Your task to perform on an android device: open app "Etsy: Buy & Sell Unique Items" (install if not already installed) and go to login screen Image 0: 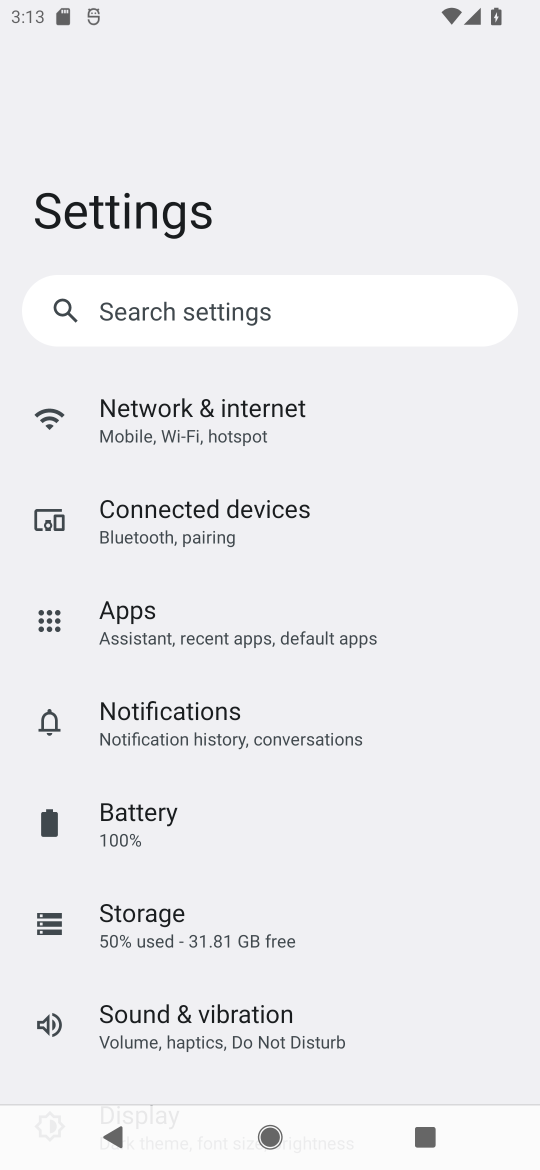
Step 0: press home button
Your task to perform on an android device: open app "Etsy: Buy & Sell Unique Items" (install if not already installed) and go to login screen Image 1: 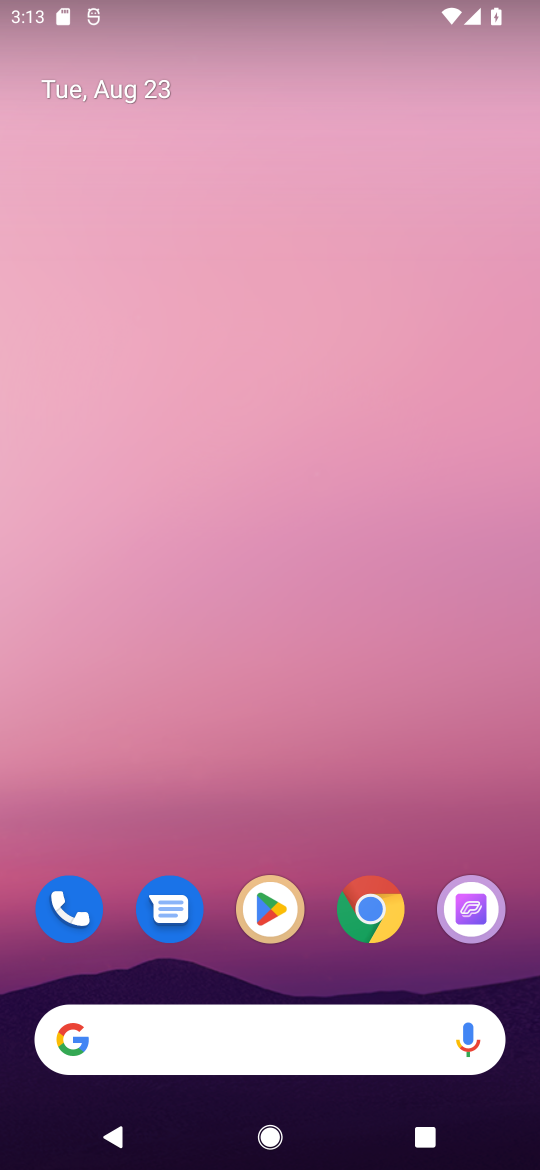
Step 1: click (264, 898)
Your task to perform on an android device: open app "Etsy: Buy & Sell Unique Items" (install if not already installed) and go to login screen Image 2: 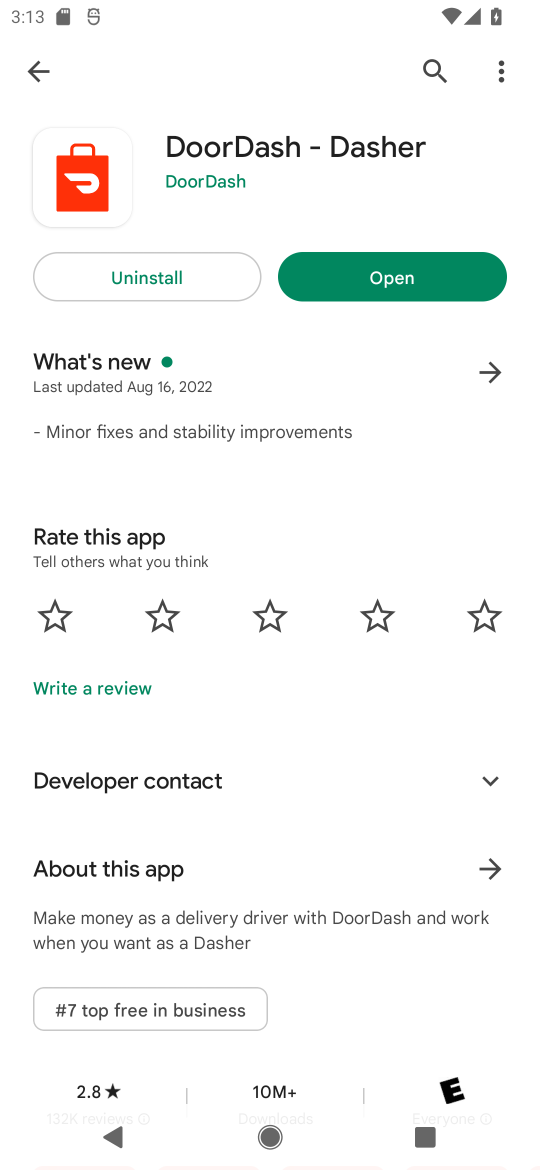
Step 2: click (422, 58)
Your task to perform on an android device: open app "Etsy: Buy & Sell Unique Items" (install if not already installed) and go to login screen Image 3: 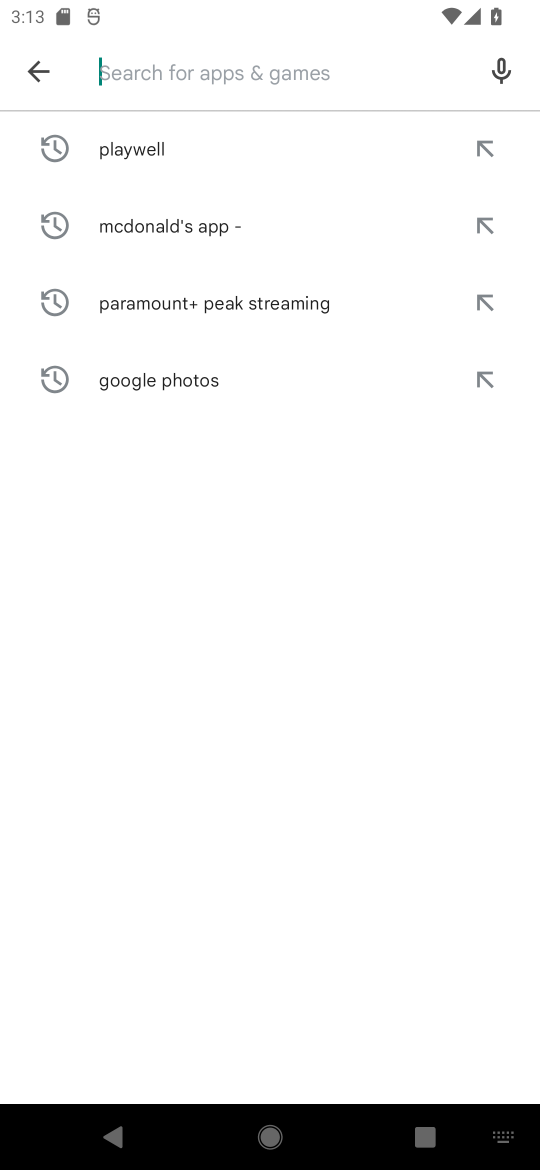
Step 3: type "Etsy"
Your task to perform on an android device: open app "Etsy: Buy & Sell Unique Items" (install if not already installed) and go to login screen Image 4: 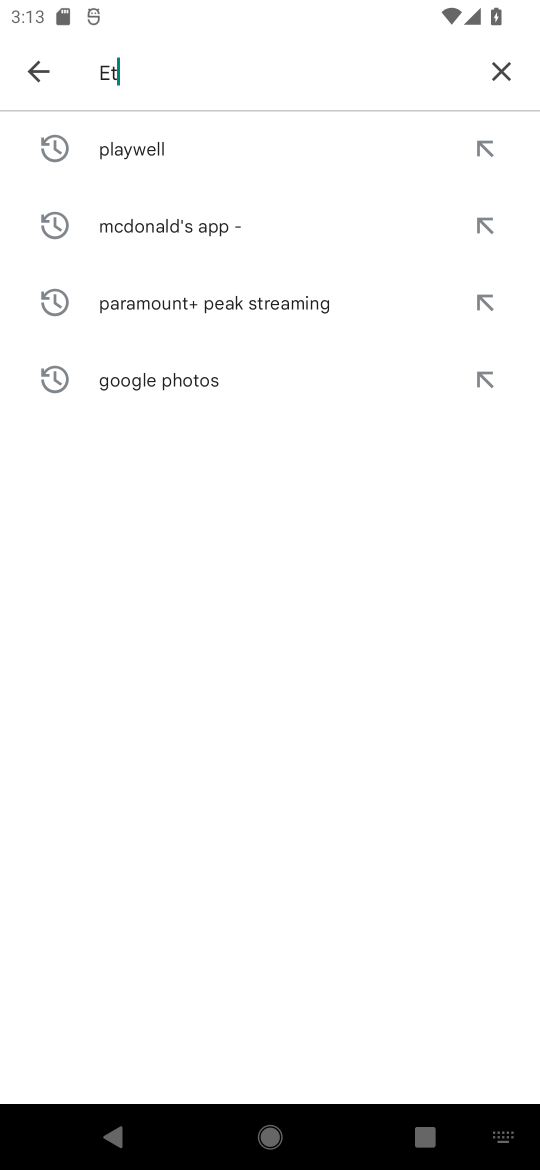
Step 4: type ""
Your task to perform on an android device: open app "Etsy: Buy & Sell Unique Items" (install if not already installed) and go to login screen Image 5: 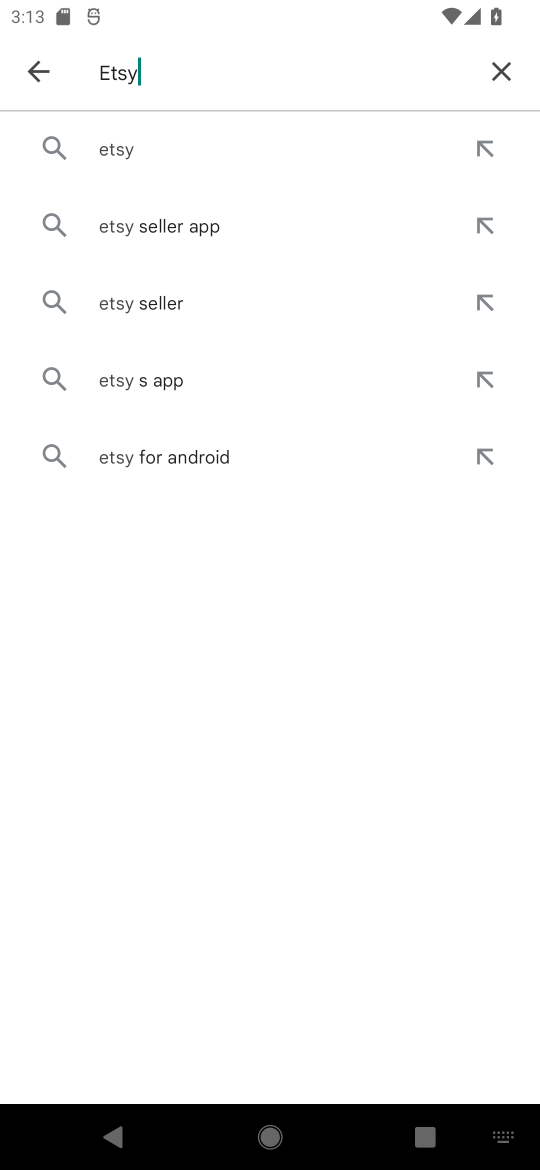
Step 5: click (157, 149)
Your task to perform on an android device: open app "Etsy: Buy & Sell Unique Items" (install if not already installed) and go to login screen Image 6: 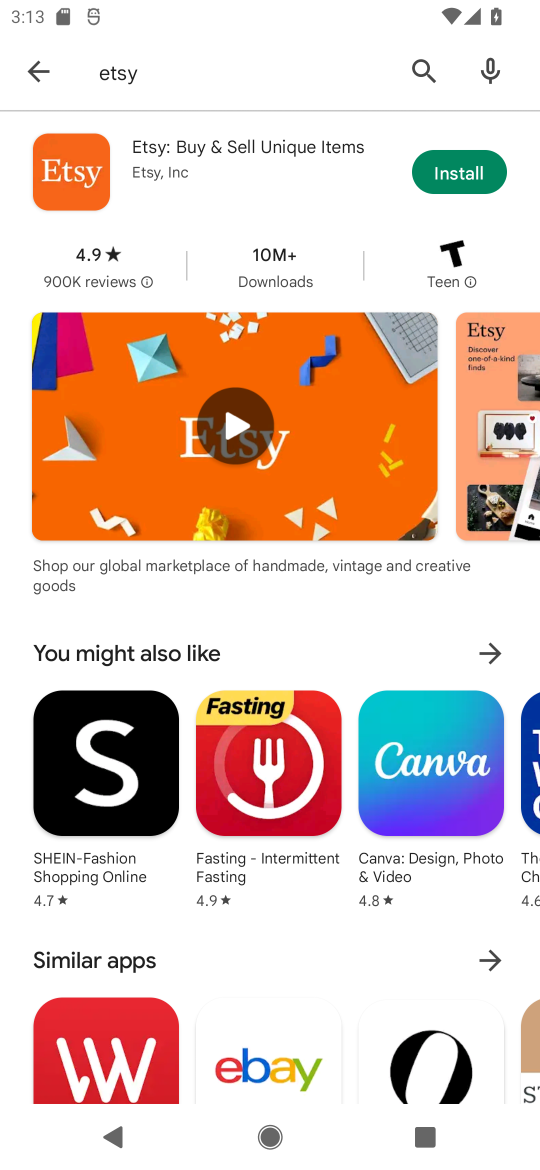
Step 6: click (459, 167)
Your task to perform on an android device: open app "Etsy: Buy & Sell Unique Items" (install if not already installed) and go to login screen Image 7: 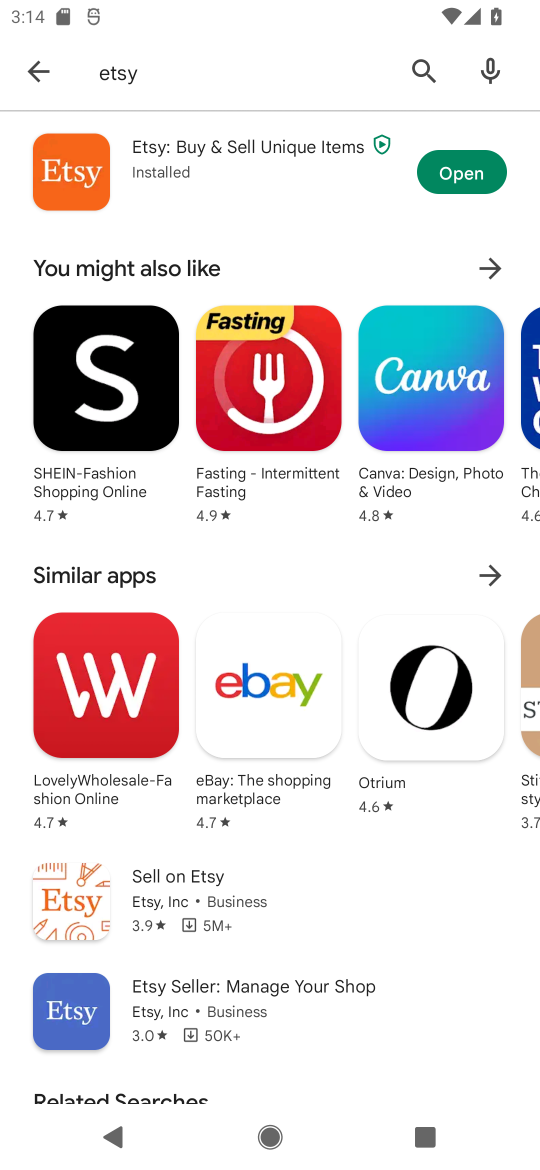
Step 7: click (465, 166)
Your task to perform on an android device: open app "Etsy: Buy & Sell Unique Items" (install if not already installed) and go to login screen Image 8: 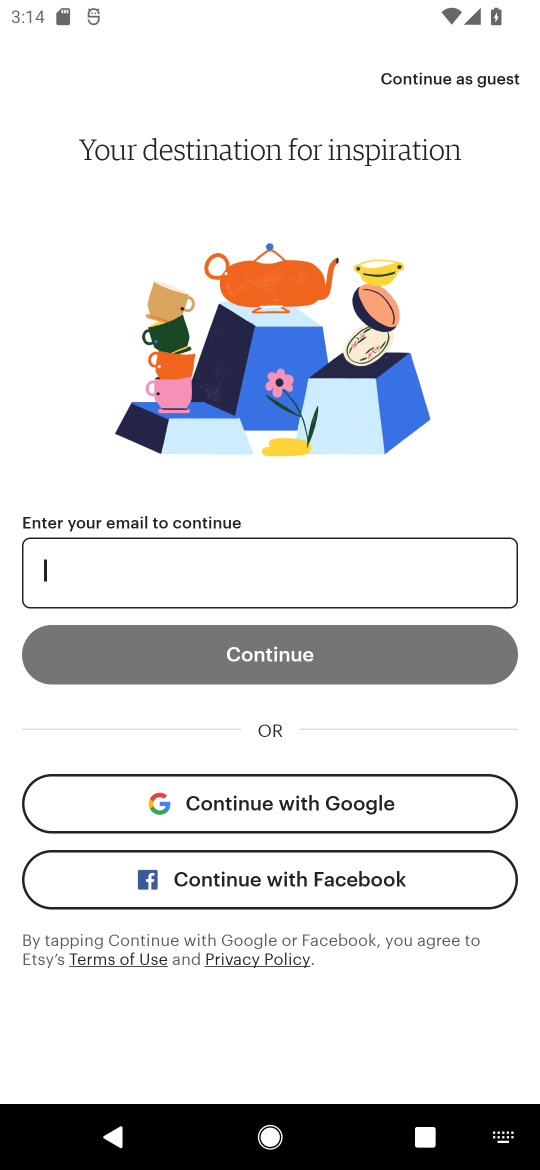
Step 8: click (294, 806)
Your task to perform on an android device: open app "Etsy: Buy & Sell Unique Items" (install if not already installed) and go to login screen Image 9: 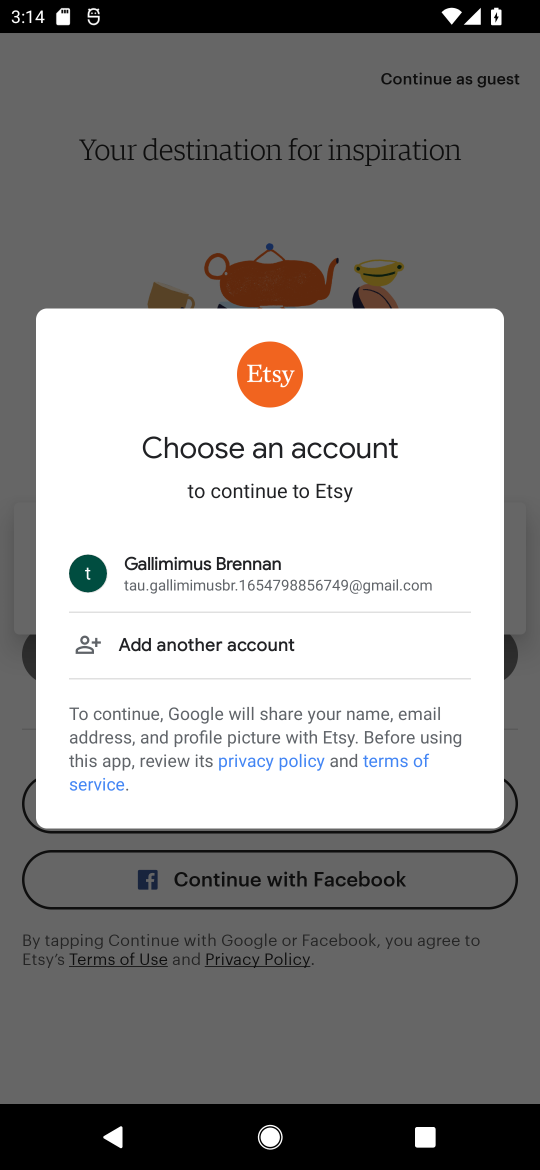
Step 9: click (208, 570)
Your task to perform on an android device: open app "Etsy: Buy & Sell Unique Items" (install if not already installed) and go to login screen Image 10: 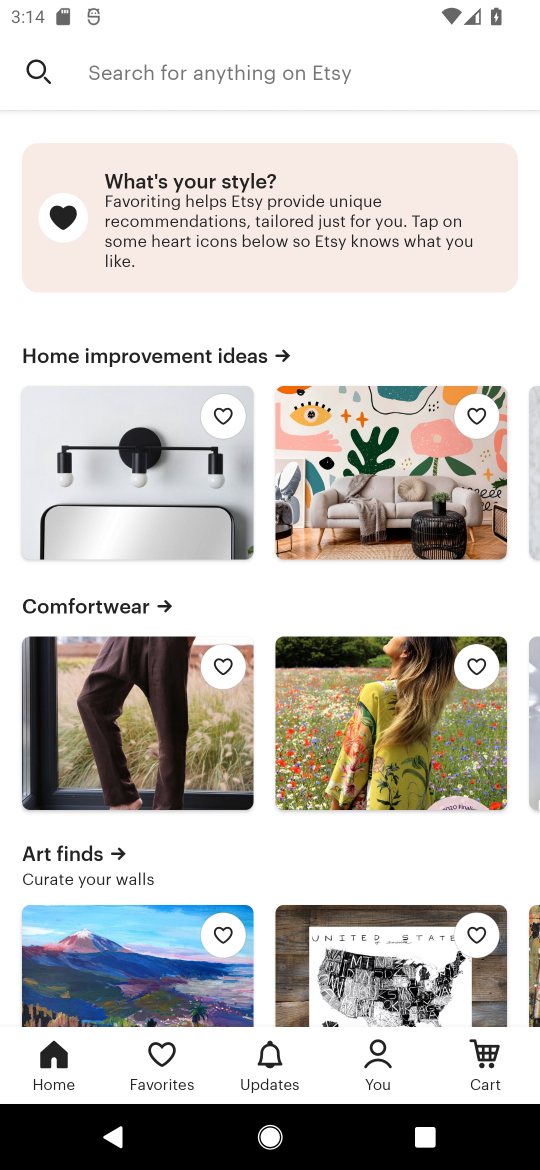
Step 10: task complete